Your task to perform on an android device: check google app version Image 0: 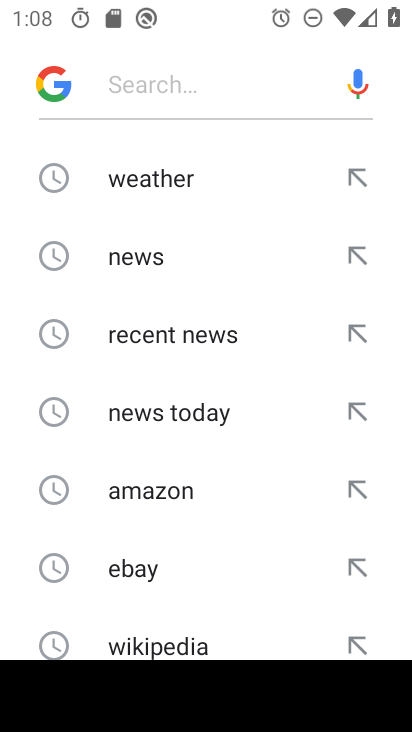
Step 0: press back button
Your task to perform on an android device: check google app version Image 1: 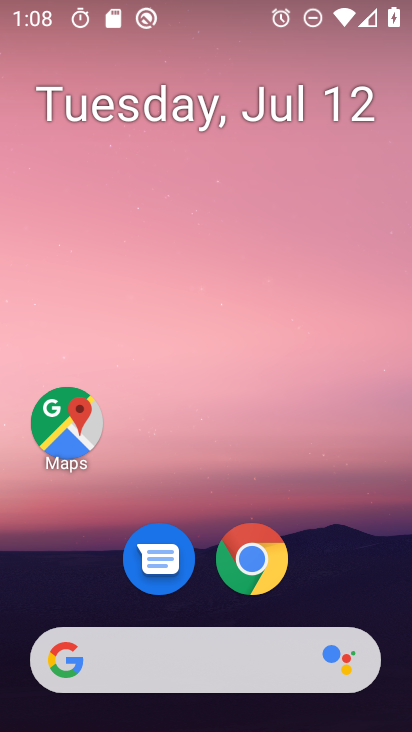
Step 1: drag from (119, 595) to (245, 49)
Your task to perform on an android device: check google app version Image 2: 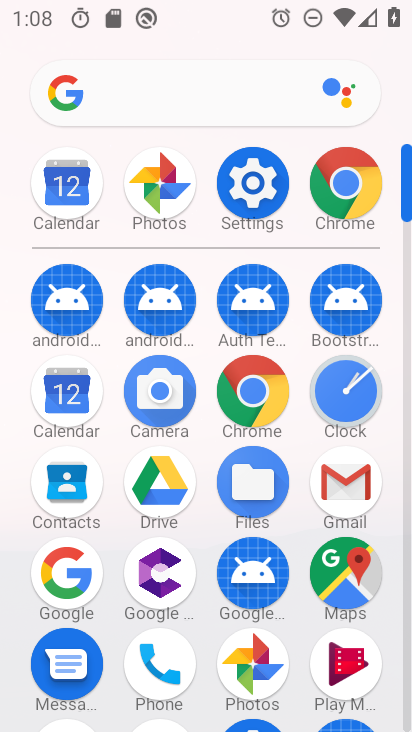
Step 2: click (73, 591)
Your task to perform on an android device: check google app version Image 3: 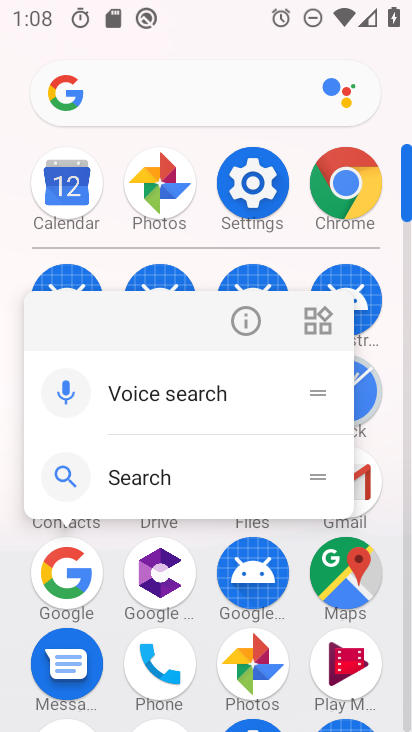
Step 3: click (251, 319)
Your task to perform on an android device: check google app version Image 4: 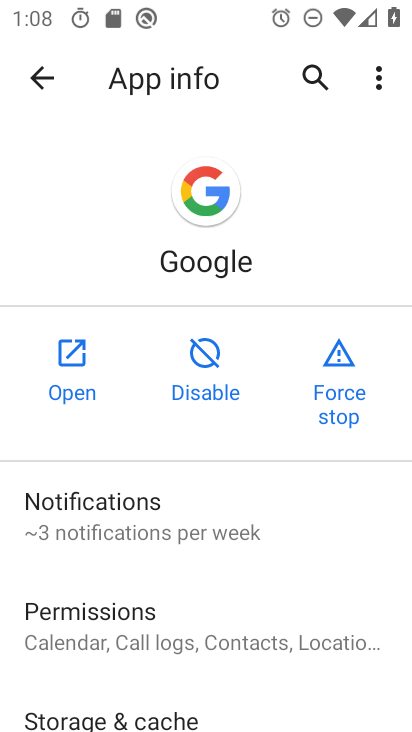
Step 4: drag from (124, 645) to (311, 43)
Your task to perform on an android device: check google app version Image 5: 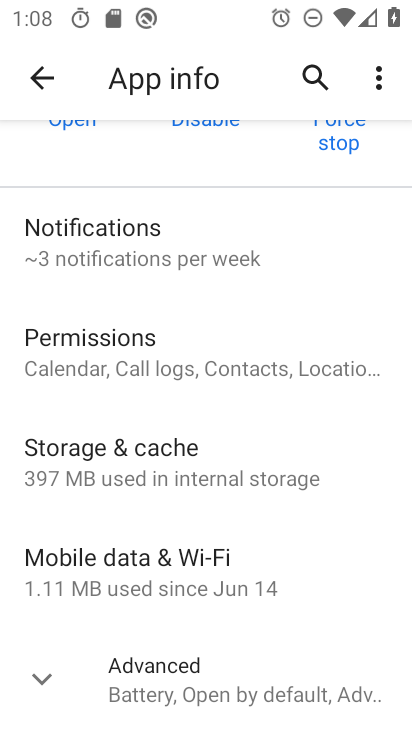
Step 5: click (190, 664)
Your task to perform on an android device: check google app version Image 6: 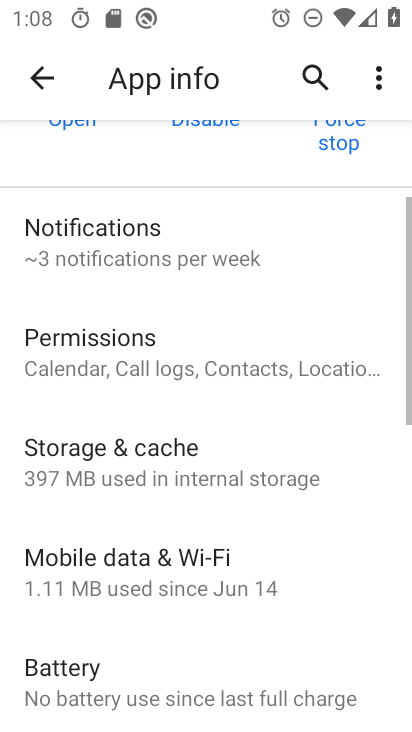
Step 6: task complete